Your task to perform on an android device: open app "Move to iOS" Image 0: 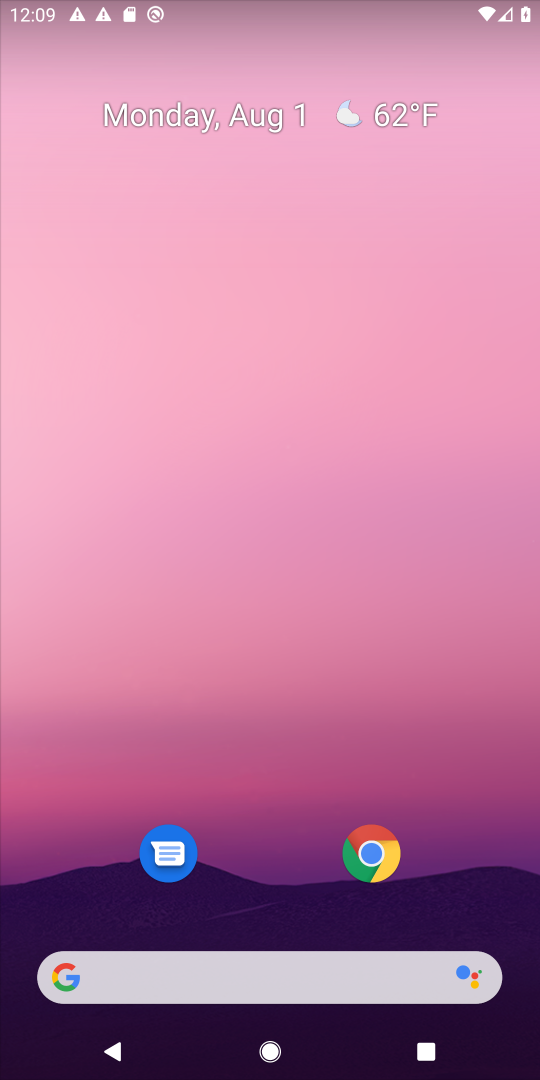
Step 0: drag from (311, 1029) to (312, 124)
Your task to perform on an android device: open app "Move to iOS" Image 1: 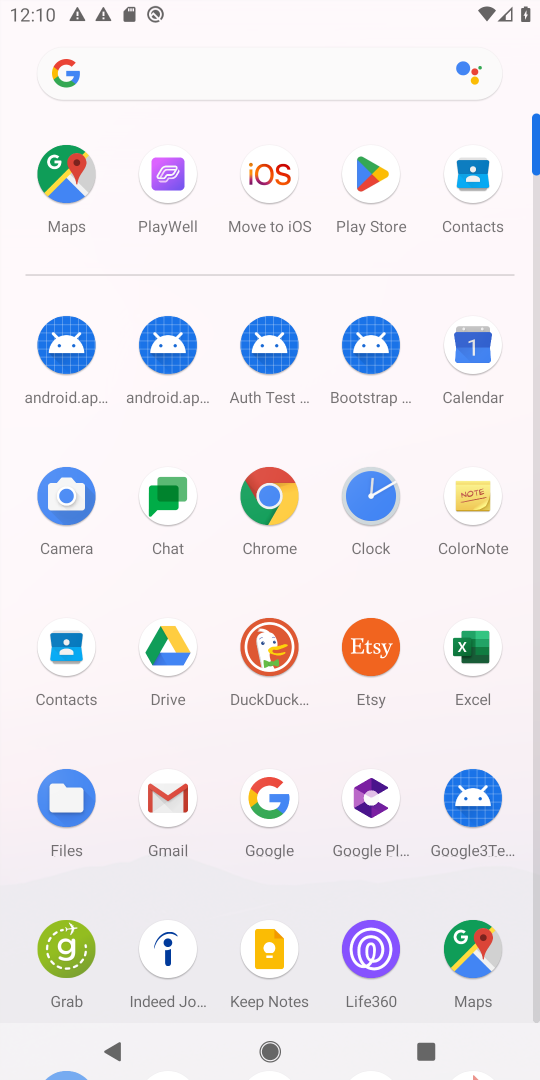
Step 1: click (270, 180)
Your task to perform on an android device: open app "Move to iOS" Image 2: 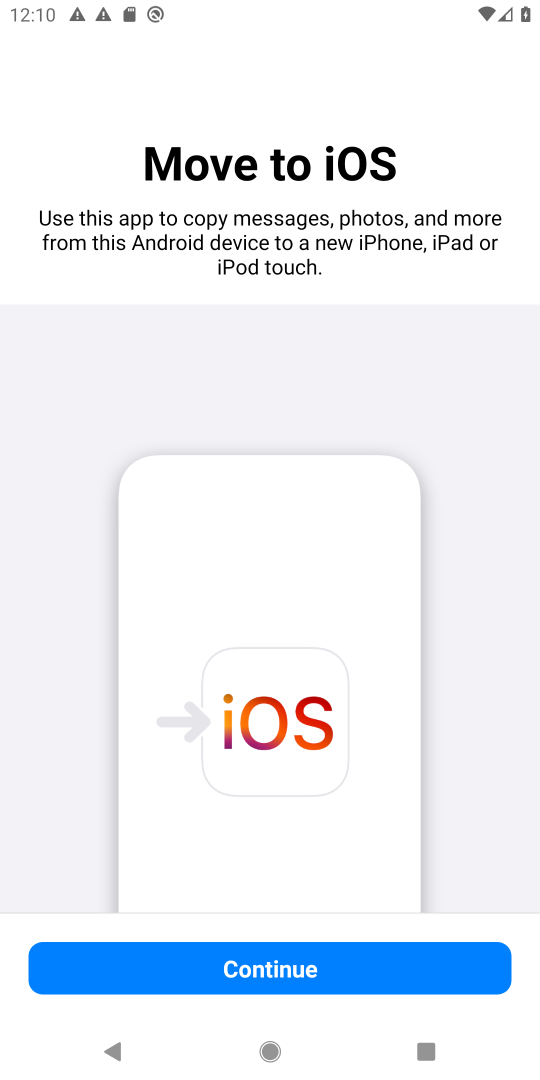
Step 2: task complete